Your task to perform on an android device: turn off smart reply in the gmail app Image 0: 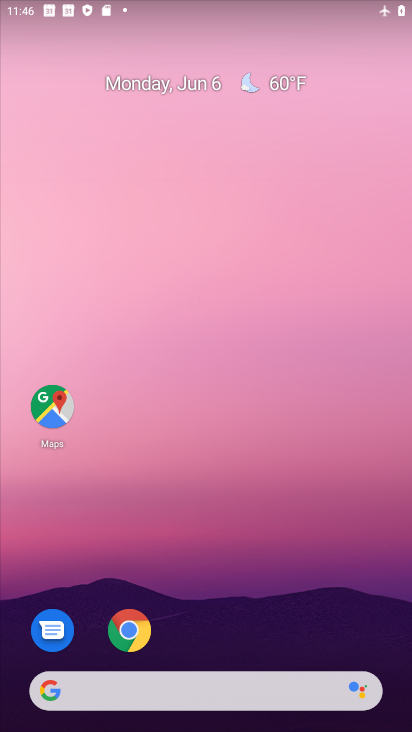
Step 0: drag from (357, 616) to (231, 139)
Your task to perform on an android device: turn off smart reply in the gmail app Image 1: 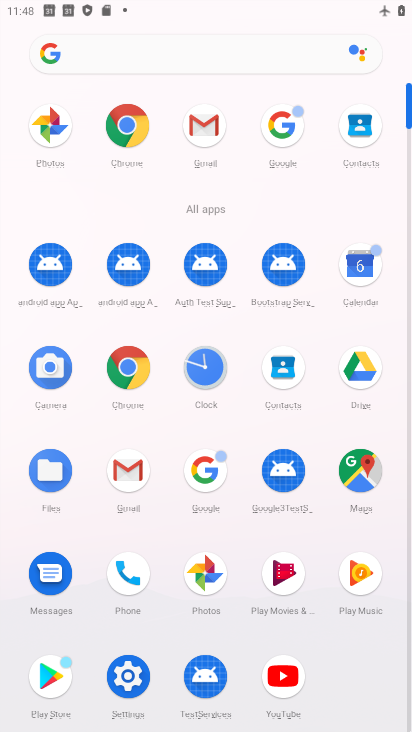
Step 1: click (122, 485)
Your task to perform on an android device: turn off smart reply in the gmail app Image 2: 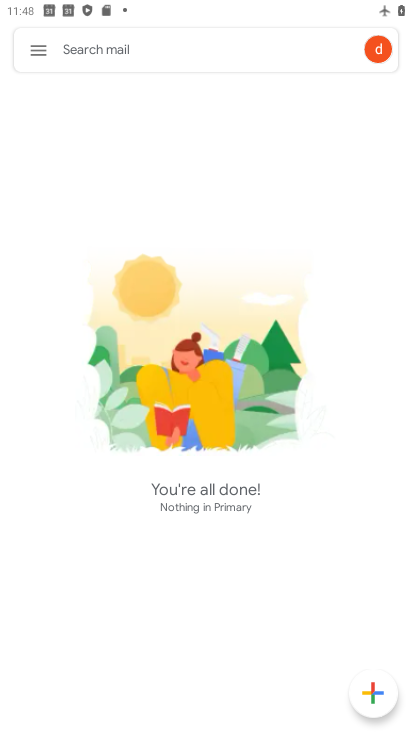
Step 2: click (52, 42)
Your task to perform on an android device: turn off smart reply in the gmail app Image 3: 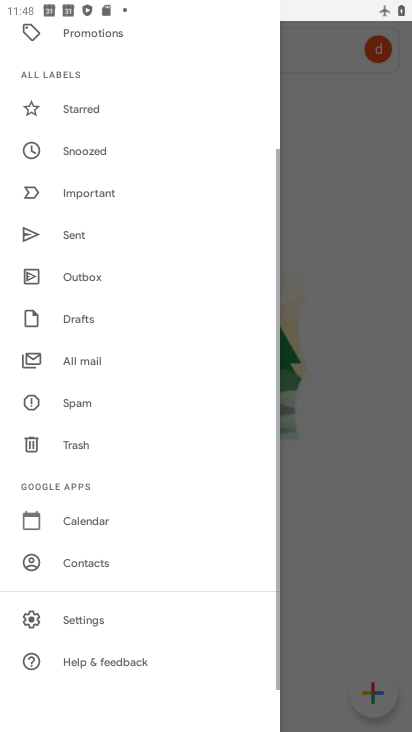
Step 3: click (130, 630)
Your task to perform on an android device: turn off smart reply in the gmail app Image 4: 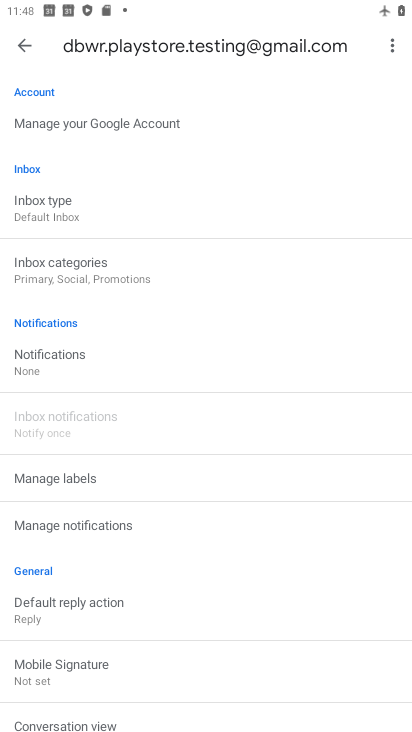
Step 4: drag from (102, 622) to (109, 128)
Your task to perform on an android device: turn off smart reply in the gmail app Image 5: 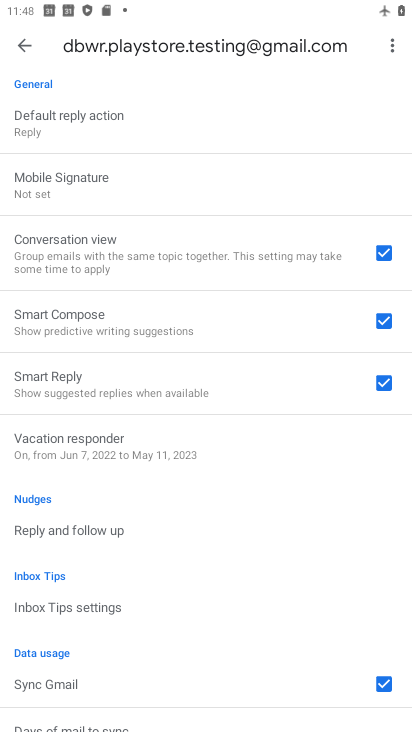
Step 5: click (167, 389)
Your task to perform on an android device: turn off smart reply in the gmail app Image 6: 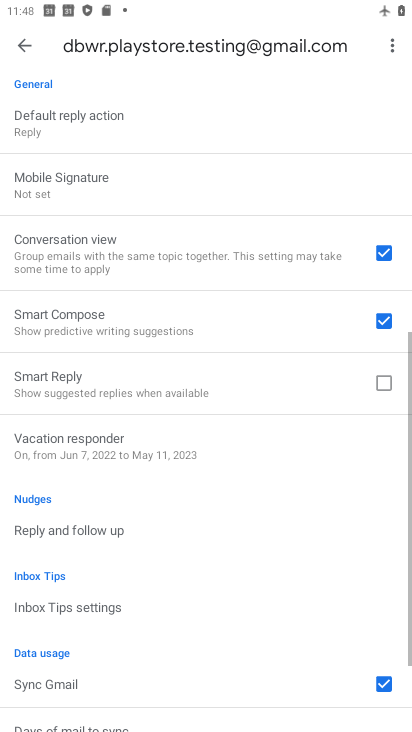
Step 6: task complete